Your task to perform on an android device: open wifi settings Image 0: 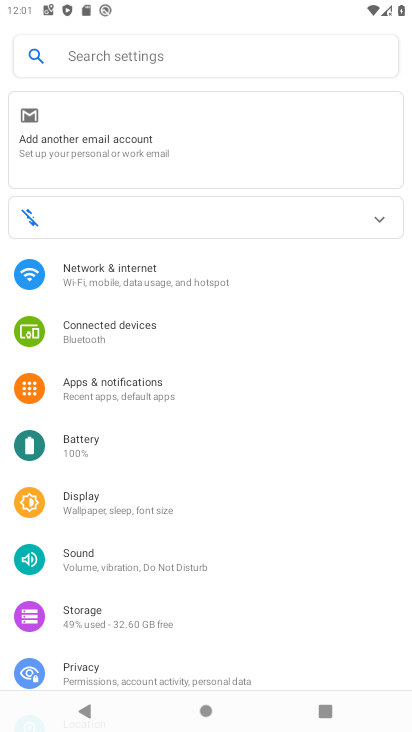
Step 0: click (186, 277)
Your task to perform on an android device: open wifi settings Image 1: 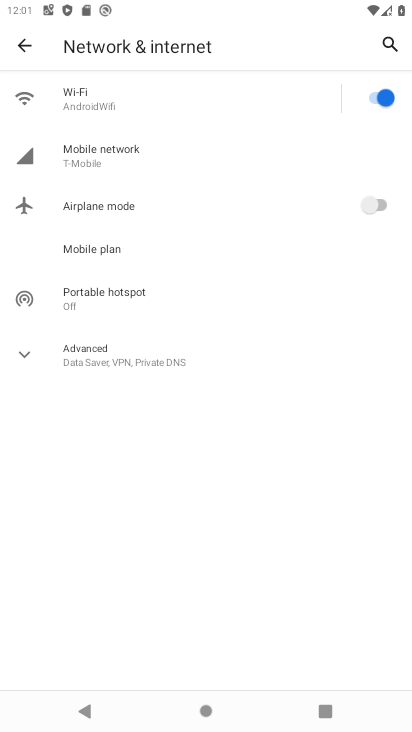
Step 1: click (131, 92)
Your task to perform on an android device: open wifi settings Image 2: 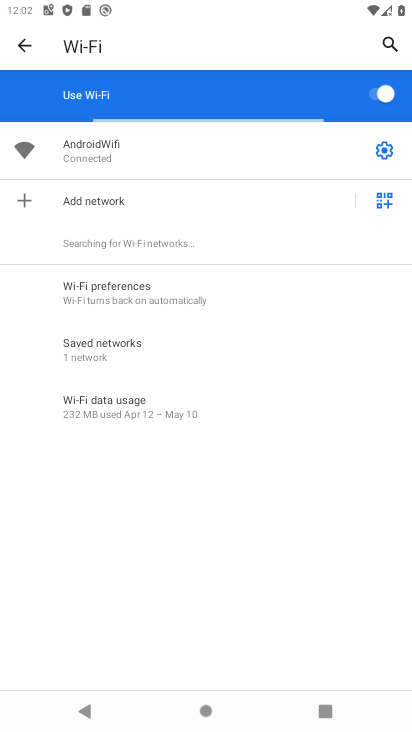
Step 2: task complete